Your task to perform on an android device: What is the news today? Image 0: 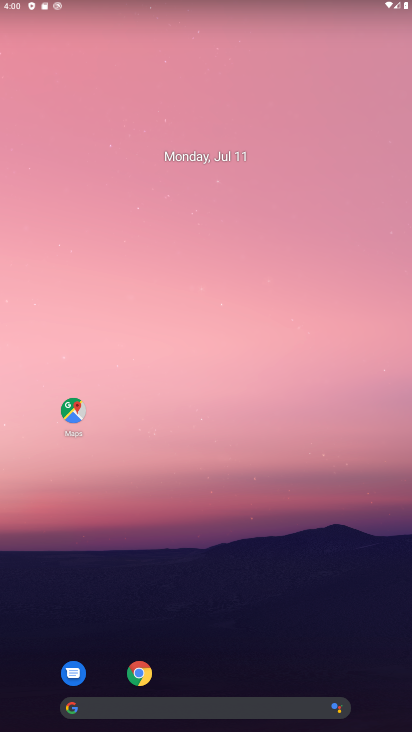
Step 0: click (138, 675)
Your task to perform on an android device: What is the news today? Image 1: 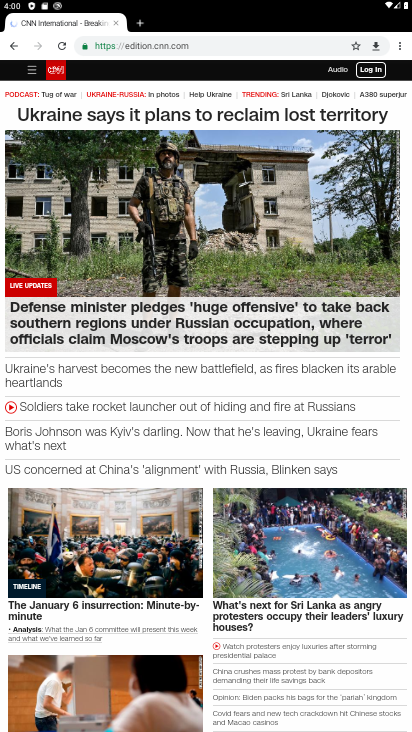
Step 1: click (208, 44)
Your task to perform on an android device: What is the news today? Image 2: 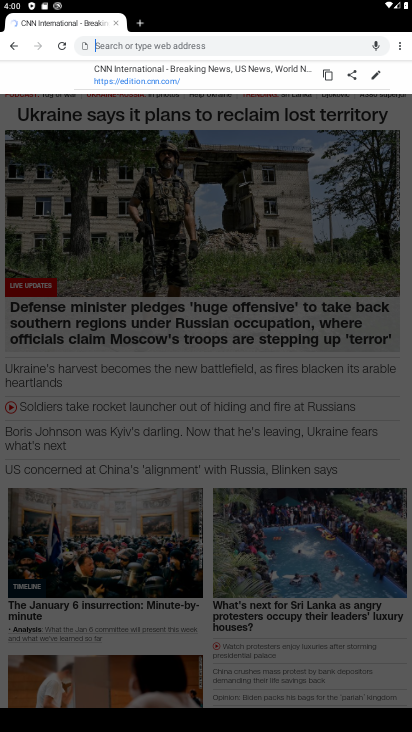
Step 2: type "news"
Your task to perform on an android device: What is the news today? Image 3: 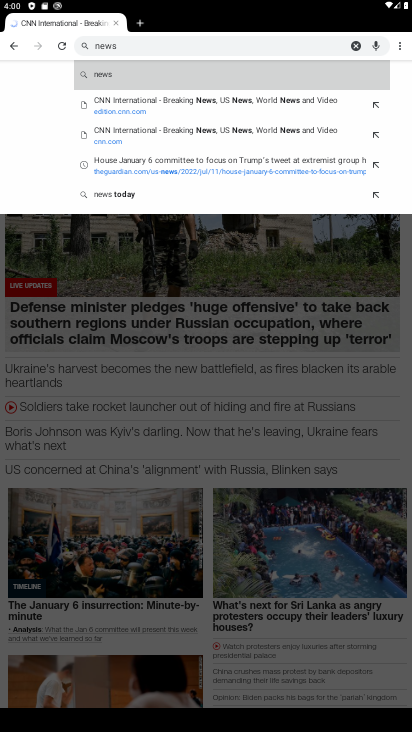
Step 3: click (230, 79)
Your task to perform on an android device: What is the news today? Image 4: 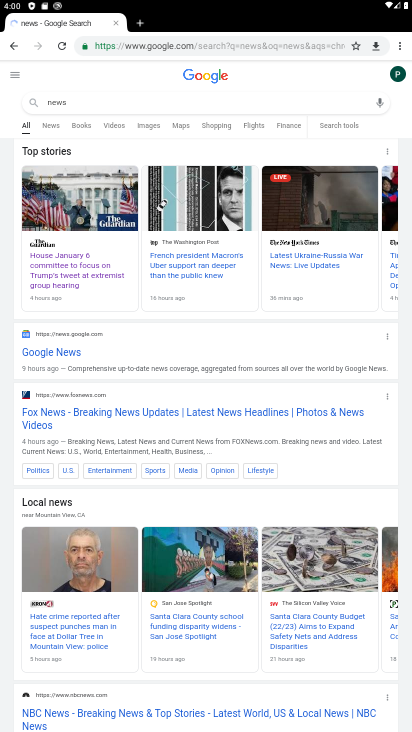
Step 4: click (101, 286)
Your task to perform on an android device: What is the news today? Image 5: 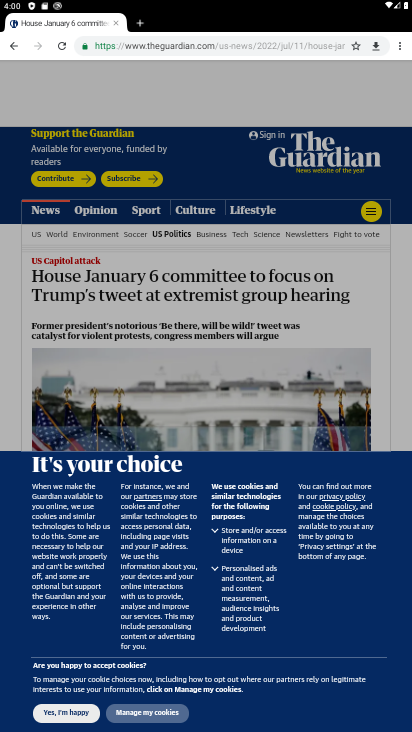
Step 5: click (86, 710)
Your task to perform on an android device: What is the news today? Image 6: 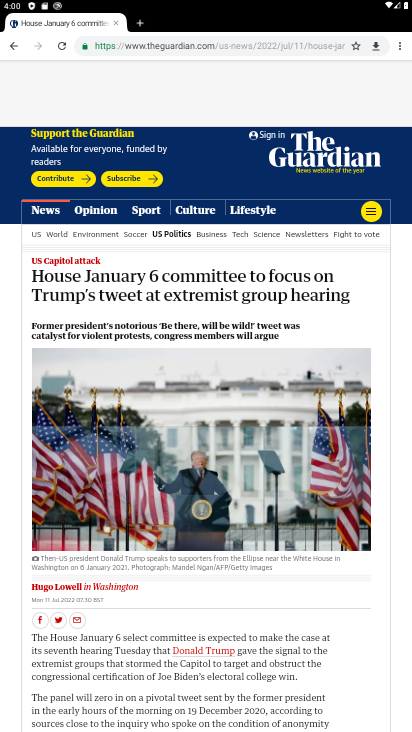
Step 6: task complete